Your task to perform on an android device: Search for seafood restaurants on Google Maps Image 0: 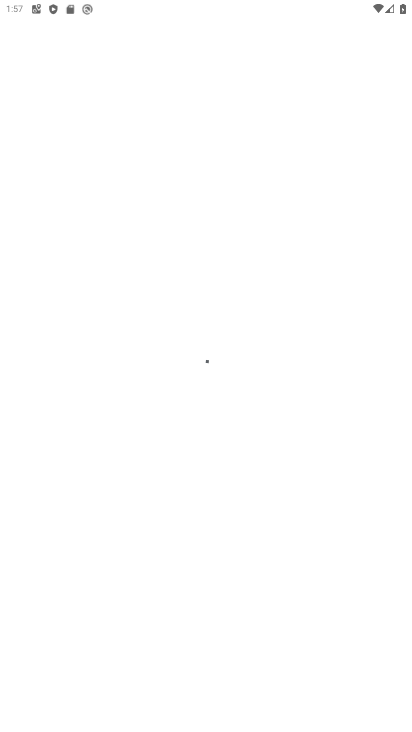
Step 0: press home button
Your task to perform on an android device: Search for seafood restaurants on Google Maps Image 1: 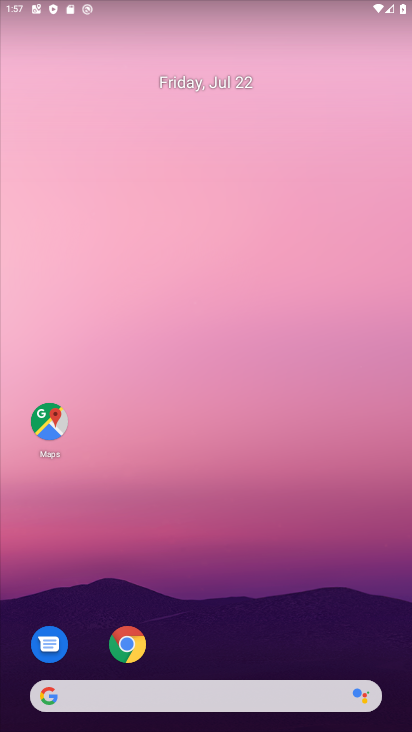
Step 1: click (47, 428)
Your task to perform on an android device: Search for seafood restaurants on Google Maps Image 2: 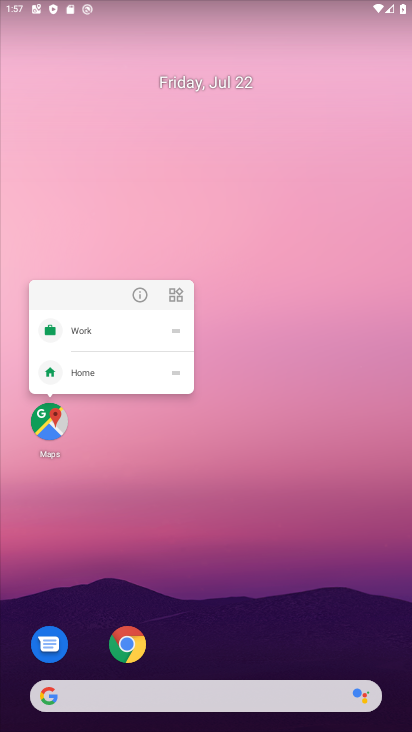
Step 2: click (57, 435)
Your task to perform on an android device: Search for seafood restaurants on Google Maps Image 3: 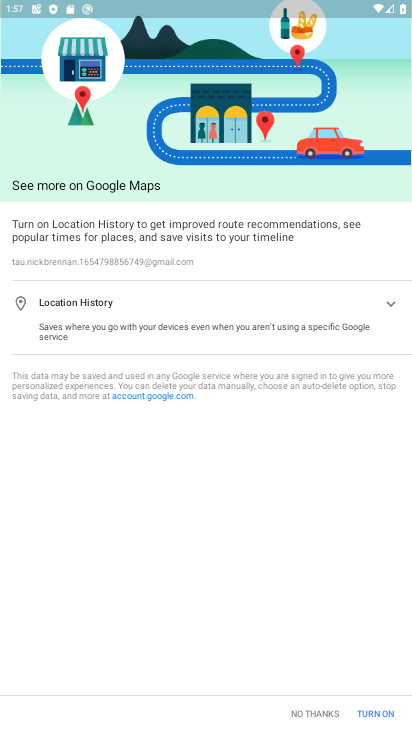
Step 3: click (303, 710)
Your task to perform on an android device: Search for seafood restaurants on Google Maps Image 4: 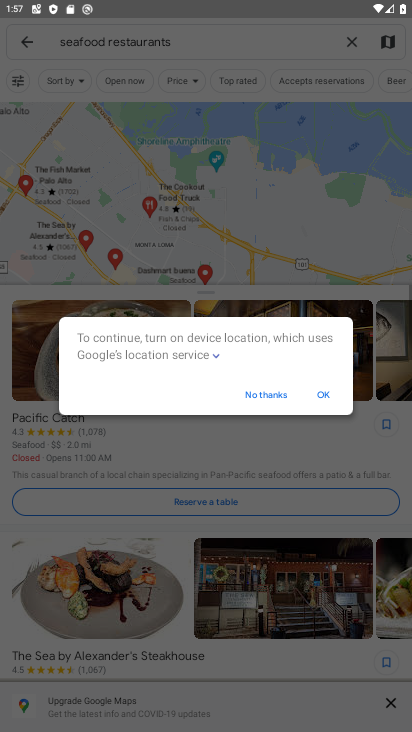
Step 4: click (279, 394)
Your task to perform on an android device: Search for seafood restaurants on Google Maps Image 5: 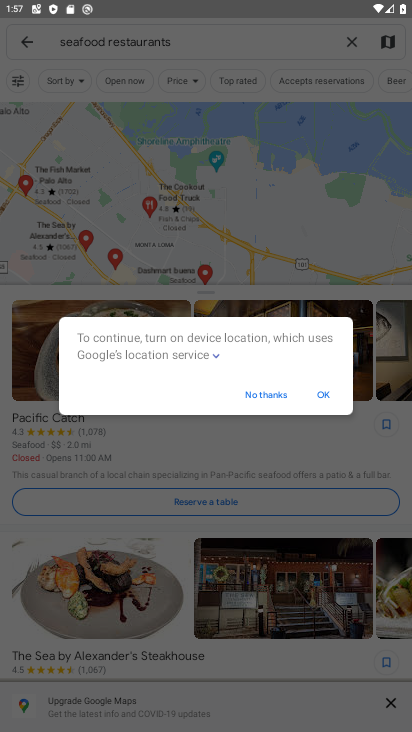
Step 5: click (273, 394)
Your task to perform on an android device: Search for seafood restaurants on Google Maps Image 6: 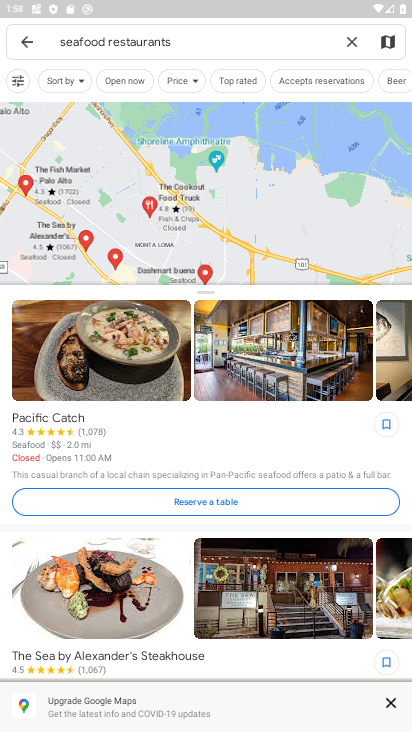
Step 6: task complete